Your task to perform on an android device: toggle sleep mode Image 0: 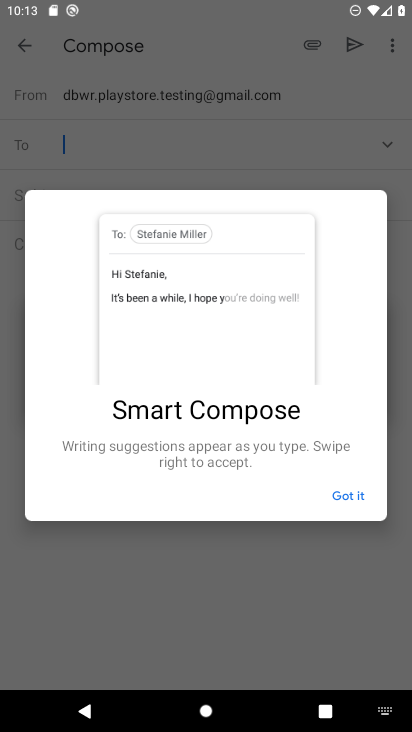
Step 0: press home button
Your task to perform on an android device: toggle sleep mode Image 1: 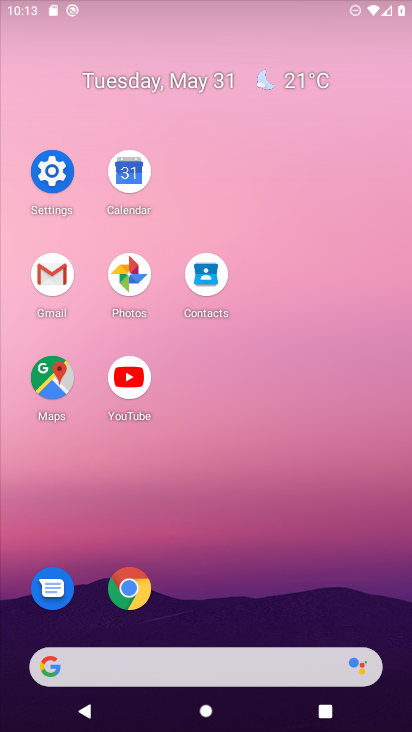
Step 1: click (49, 154)
Your task to perform on an android device: toggle sleep mode Image 2: 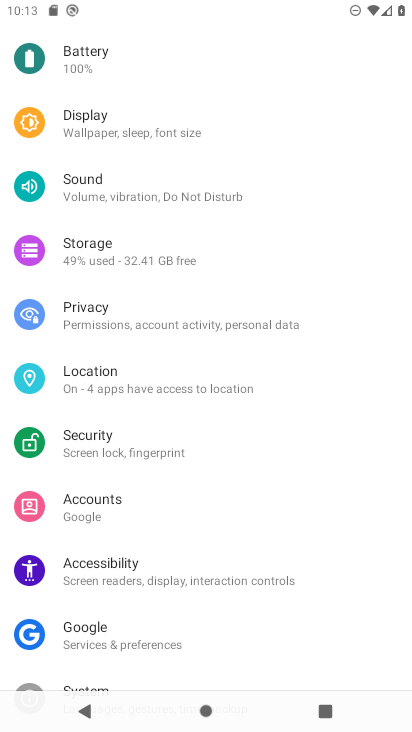
Step 2: click (158, 127)
Your task to perform on an android device: toggle sleep mode Image 3: 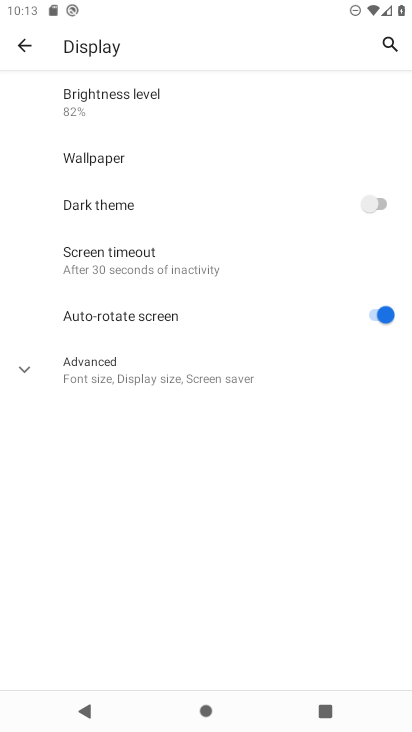
Step 3: click (196, 251)
Your task to perform on an android device: toggle sleep mode Image 4: 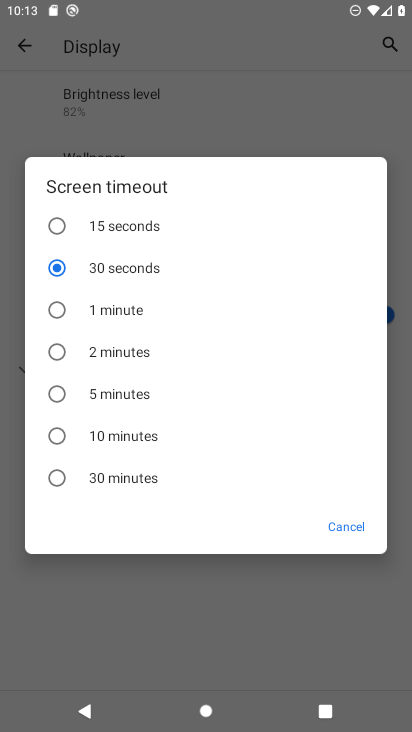
Step 4: click (110, 222)
Your task to perform on an android device: toggle sleep mode Image 5: 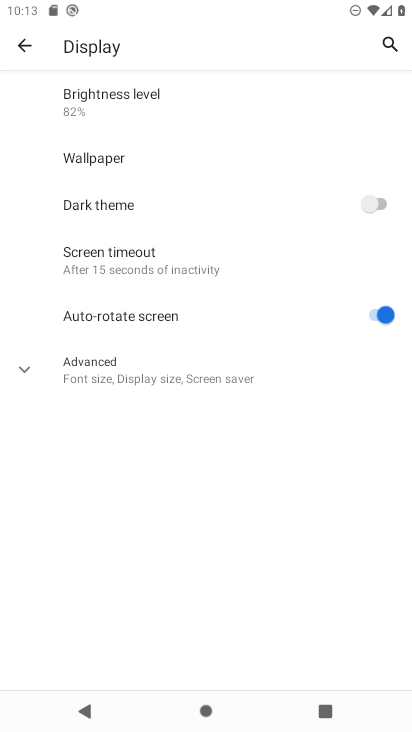
Step 5: task complete